Your task to perform on an android device: Do I have any events today? Image 0: 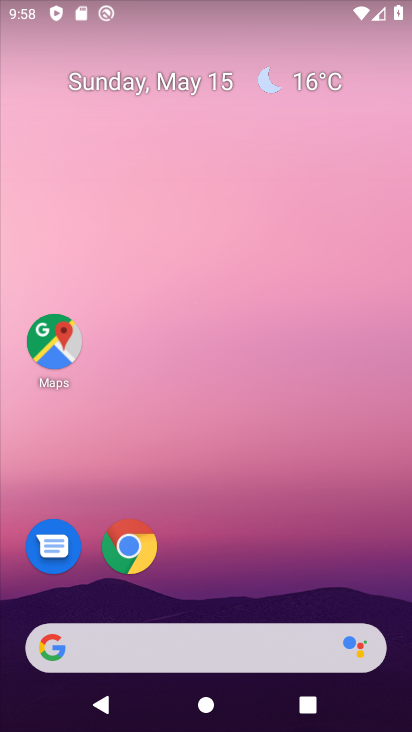
Step 0: drag from (268, 698) to (222, 123)
Your task to perform on an android device: Do I have any events today? Image 1: 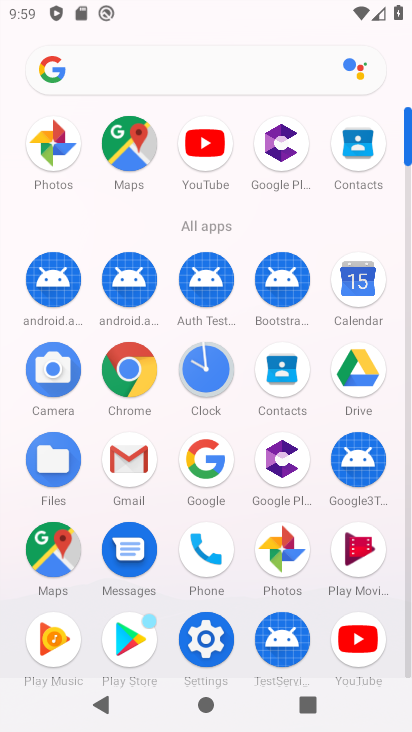
Step 1: click (353, 270)
Your task to perform on an android device: Do I have any events today? Image 2: 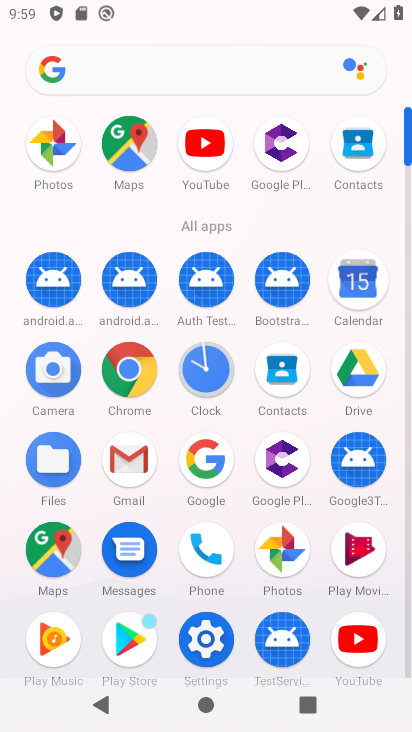
Step 2: click (353, 276)
Your task to perform on an android device: Do I have any events today? Image 3: 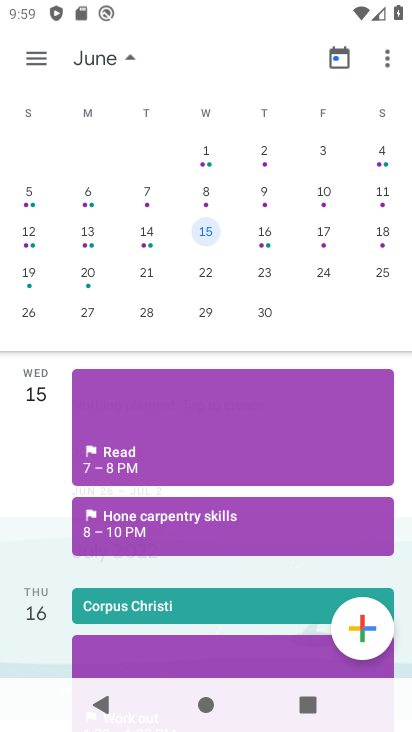
Step 3: click (361, 278)
Your task to perform on an android device: Do I have any events today? Image 4: 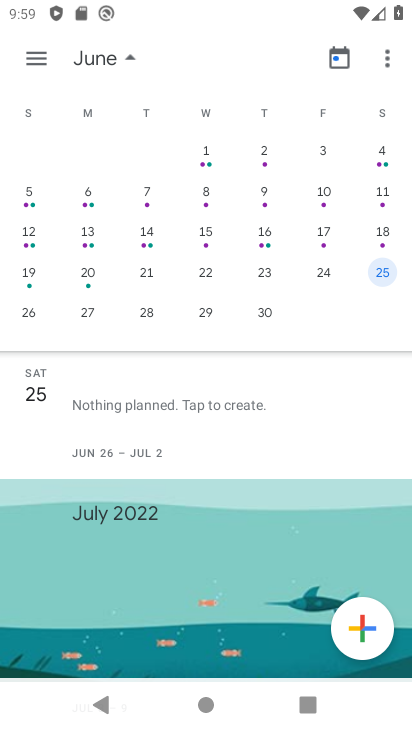
Step 4: drag from (69, 255) to (390, 266)
Your task to perform on an android device: Do I have any events today? Image 5: 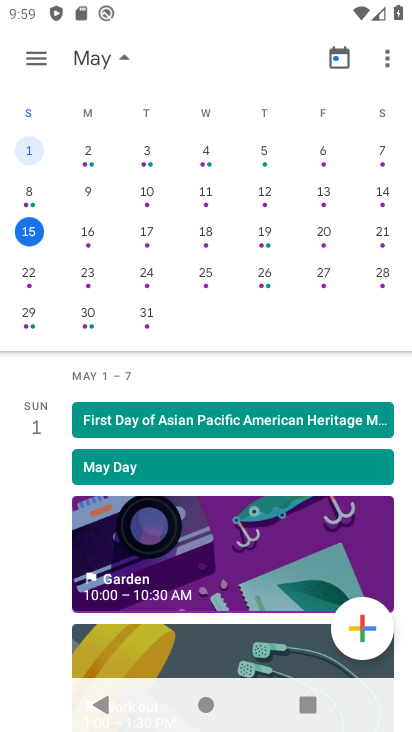
Step 5: click (87, 231)
Your task to perform on an android device: Do I have any events today? Image 6: 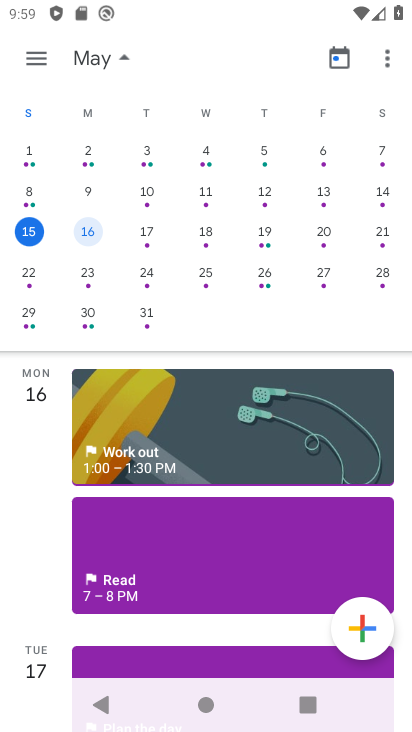
Step 6: click (87, 231)
Your task to perform on an android device: Do I have any events today? Image 7: 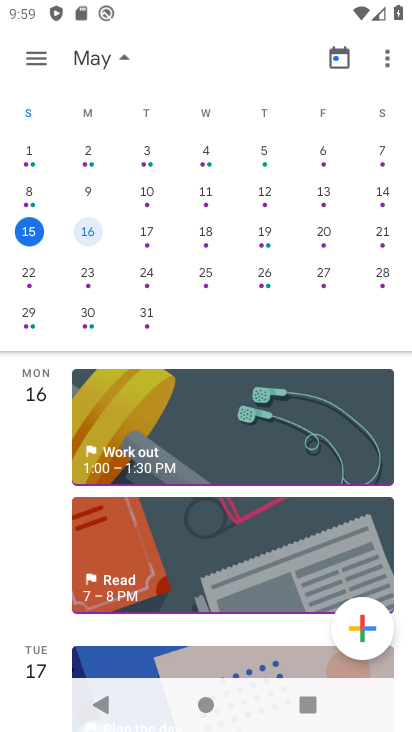
Step 7: click (86, 244)
Your task to perform on an android device: Do I have any events today? Image 8: 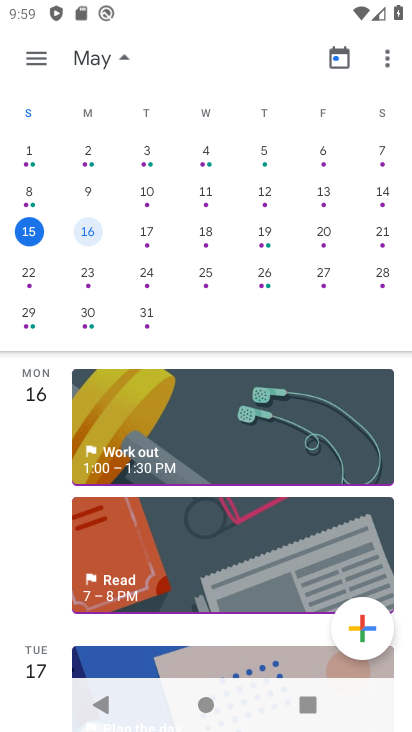
Step 8: click (86, 244)
Your task to perform on an android device: Do I have any events today? Image 9: 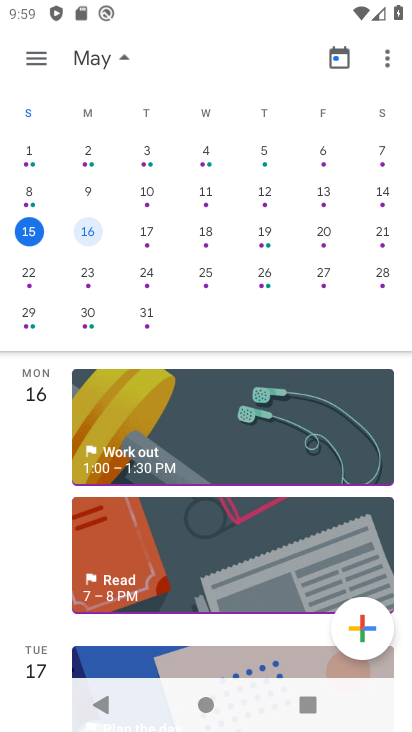
Step 9: click (88, 231)
Your task to perform on an android device: Do I have any events today? Image 10: 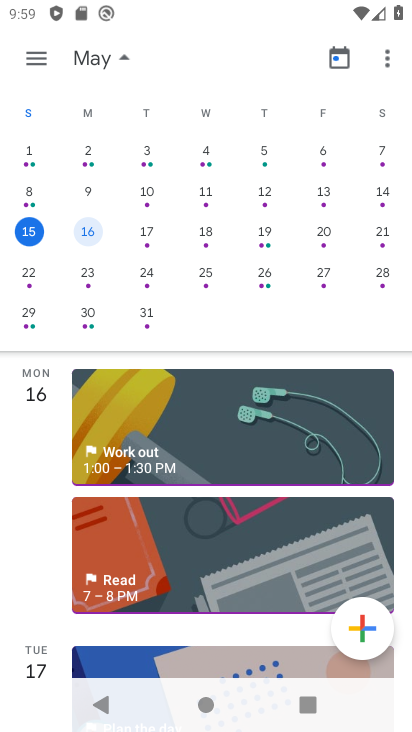
Step 10: task complete